Your task to perform on an android device: toggle notifications settings in the gmail app Image 0: 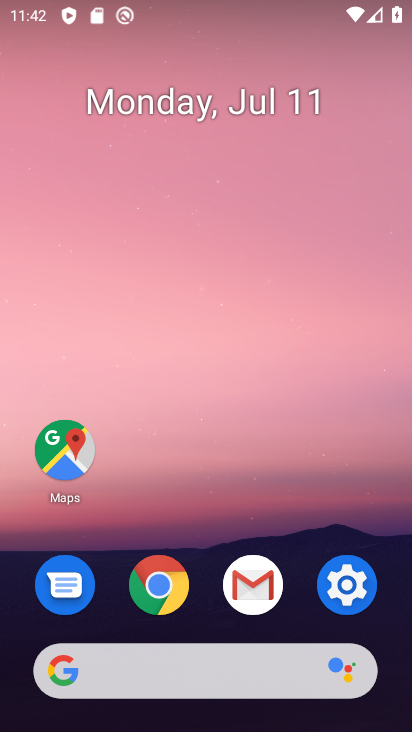
Step 0: click (245, 601)
Your task to perform on an android device: toggle notifications settings in the gmail app Image 1: 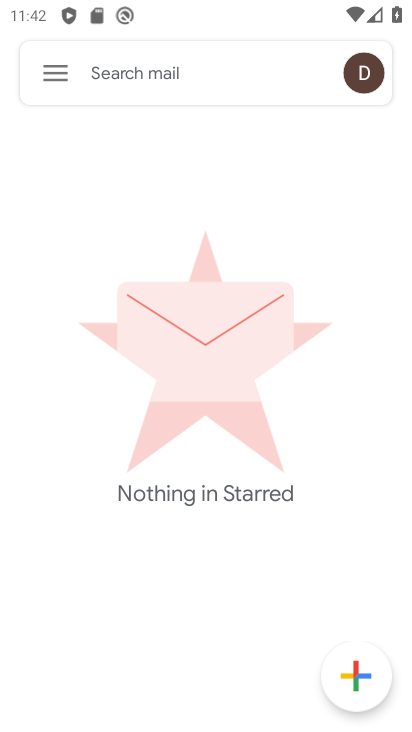
Step 1: click (51, 73)
Your task to perform on an android device: toggle notifications settings in the gmail app Image 2: 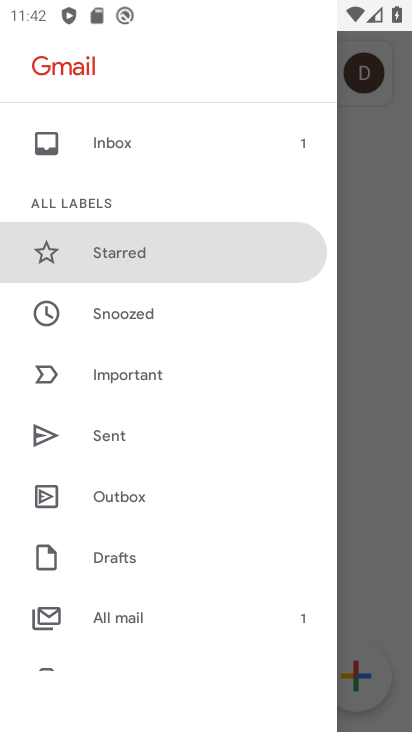
Step 2: drag from (236, 242) to (245, 148)
Your task to perform on an android device: toggle notifications settings in the gmail app Image 3: 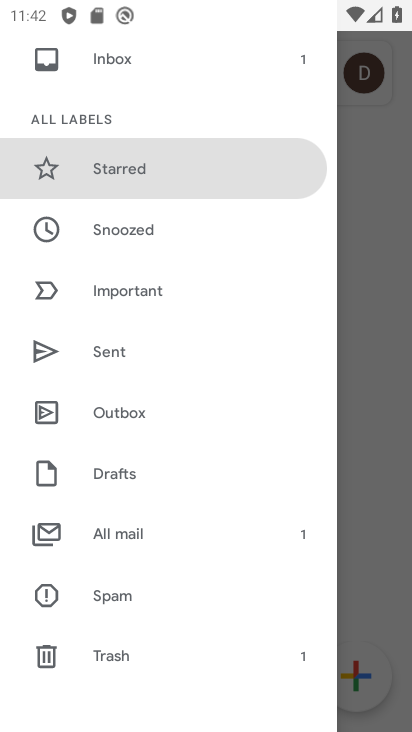
Step 3: drag from (149, 606) to (227, 290)
Your task to perform on an android device: toggle notifications settings in the gmail app Image 4: 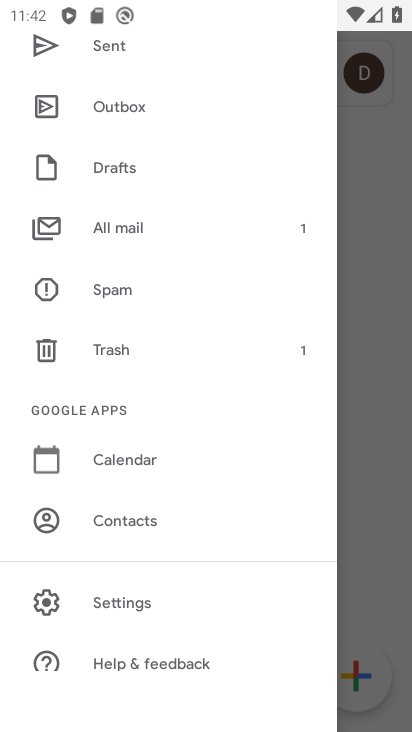
Step 4: click (129, 604)
Your task to perform on an android device: toggle notifications settings in the gmail app Image 5: 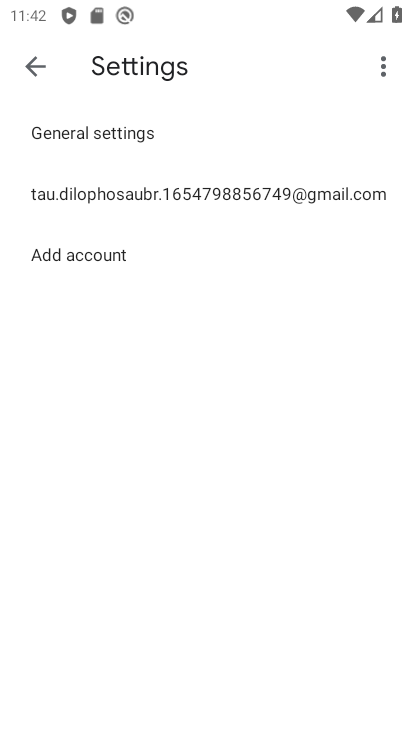
Step 5: click (163, 187)
Your task to perform on an android device: toggle notifications settings in the gmail app Image 6: 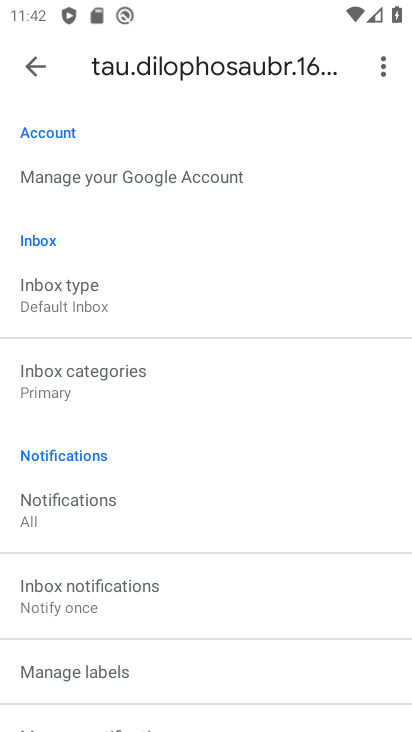
Step 6: click (47, 492)
Your task to perform on an android device: toggle notifications settings in the gmail app Image 7: 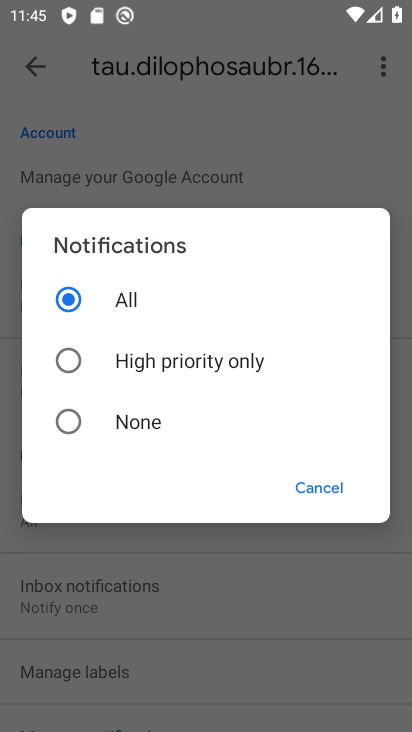
Step 7: task complete